Your task to perform on an android device: delete browsing data in the chrome app Image 0: 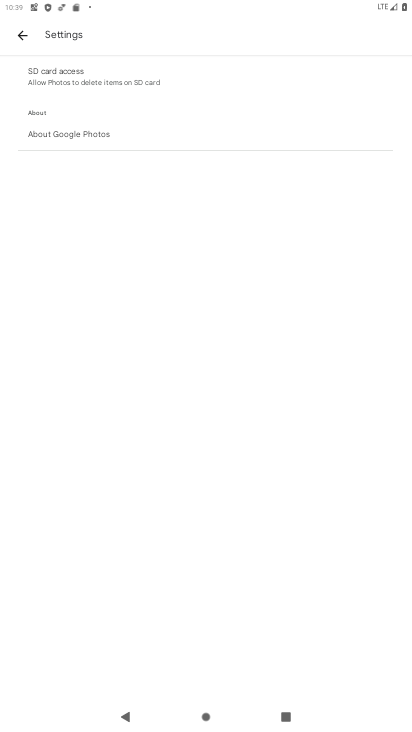
Step 0: press home button
Your task to perform on an android device: delete browsing data in the chrome app Image 1: 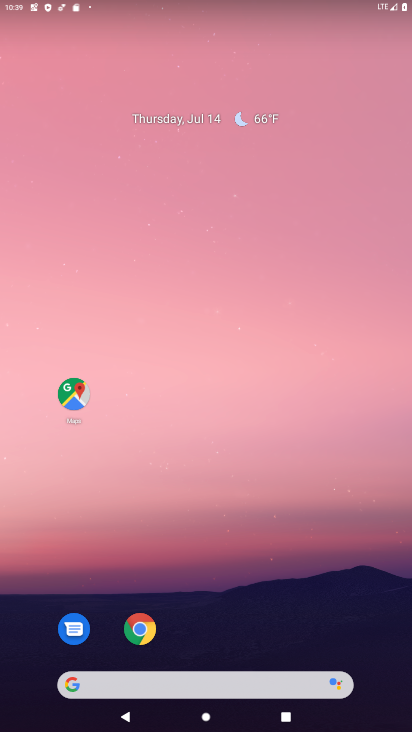
Step 1: click (130, 632)
Your task to perform on an android device: delete browsing data in the chrome app Image 2: 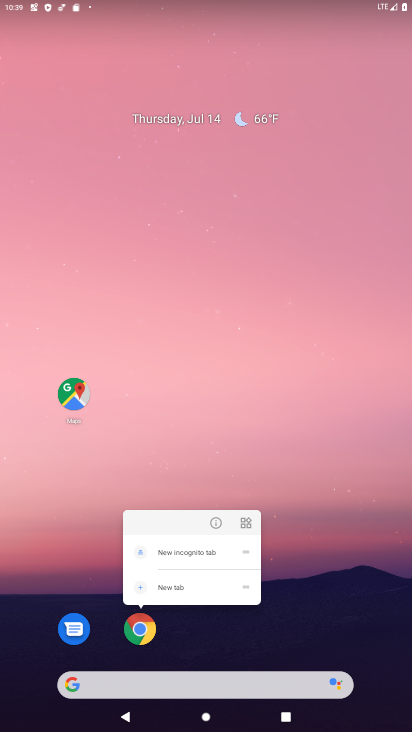
Step 2: click (141, 625)
Your task to perform on an android device: delete browsing data in the chrome app Image 3: 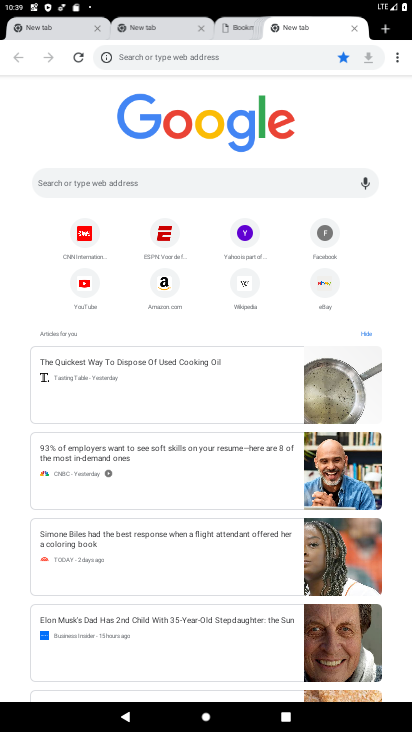
Step 3: drag from (399, 62) to (287, 267)
Your task to perform on an android device: delete browsing data in the chrome app Image 4: 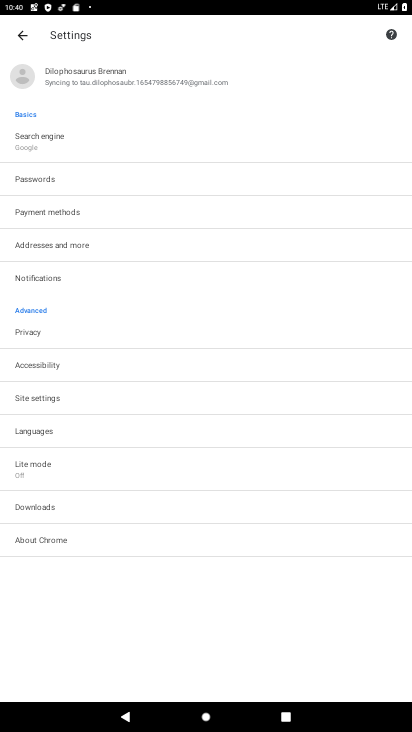
Step 4: click (30, 330)
Your task to perform on an android device: delete browsing data in the chrome app Image 5: 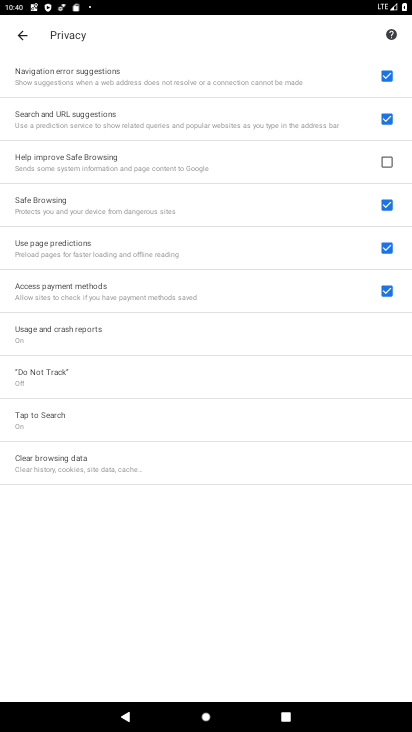
Step 5: click (39, 463)
Your task to perform on an android device: delete browsing data in the chrome app Image 6: 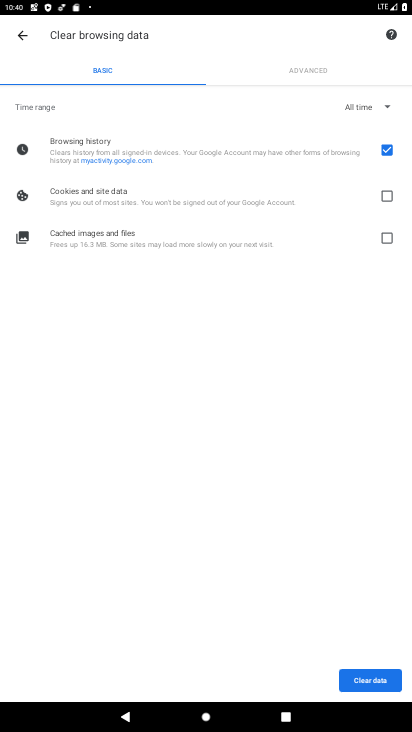
Step 6: click (386, 678)
Your task to perform on an android device: delete browsing data in the chrome app Image 7: 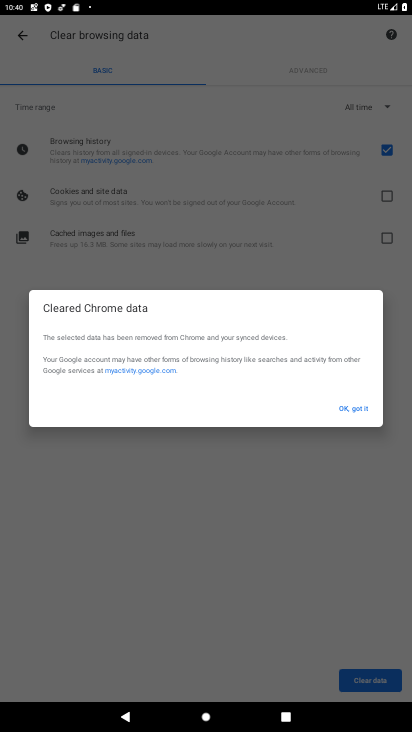
Step 7: click (356, 406)
Your task to perform on an android device: delete browsing data in the chrome app Image 8: 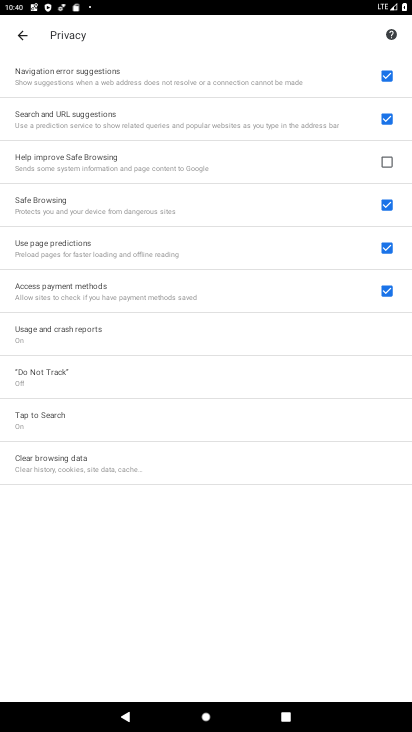
Step 8: task complete